Your task to perform on an android device: turn off improve location accuracy Image 0: 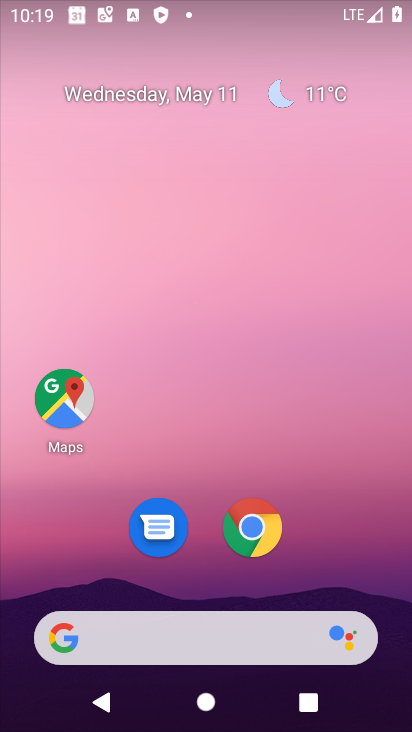
Step 0: drag from (357, 543) to (371, 124)
Your task to perform on an android device: turn off improve location accuracy Image 1: 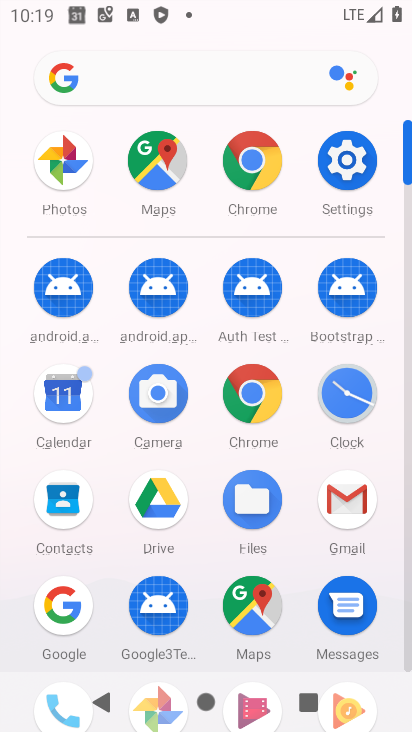
Step 1: click (340, 181)
Your task to perform on an android device: turn off improve location accuracy Image 2: 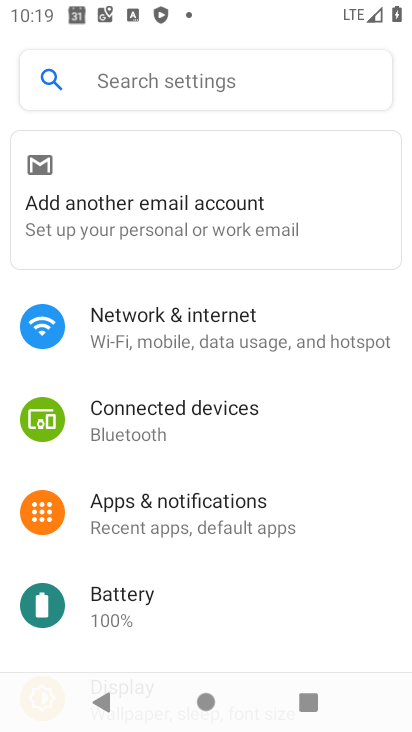
Step 2: drag from (286, 294) to (295, 219)
Your task to perform on an android device: turn off improve location accuracy Image 3: 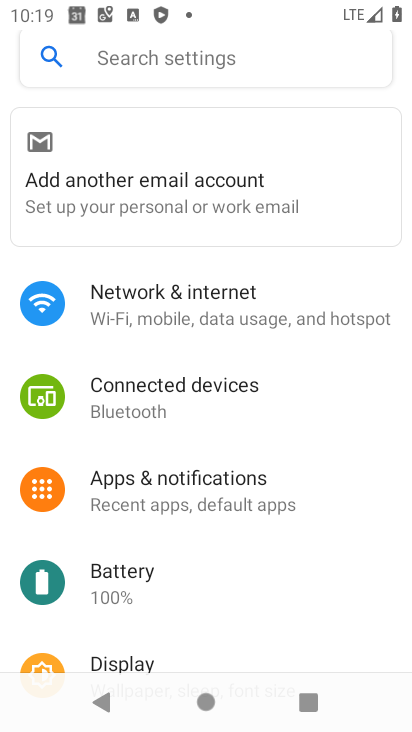
Step 3: drag from (249, 610) to (239, 314)
Your task to perform on an android device: turn off improve location accuracy Image 4: 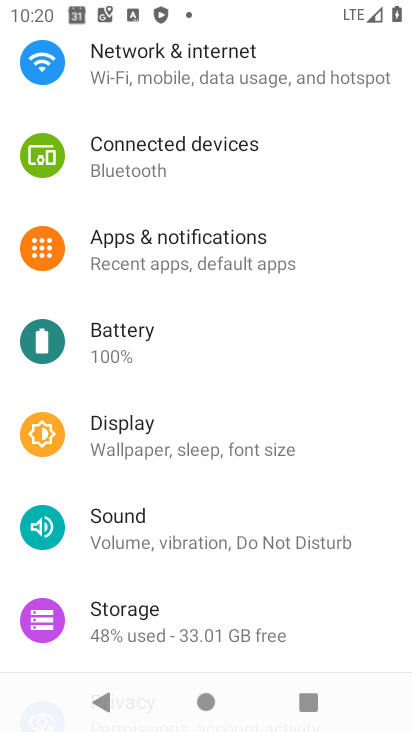
Step 4: drag from (246, 601) to (308, 221)
Your task to perform on an android device: turn off improve location accuracy Image 5: 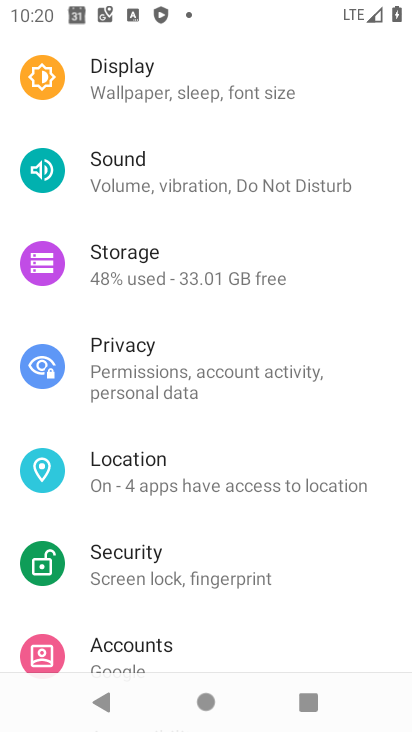
Step 5: click (224, 485)
Your task to perform on an android device: turn off improve location accuracy Image 6: 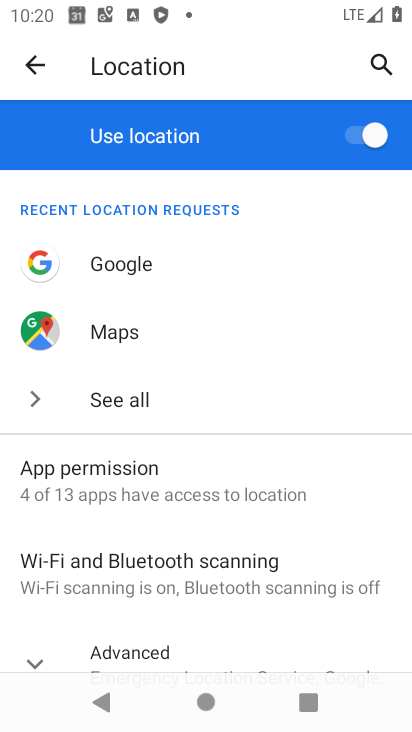
Step 6: drag from (189, 583) to (248, 286)
Your task to perform on an android device: turn off improve location accuracy Image 7: 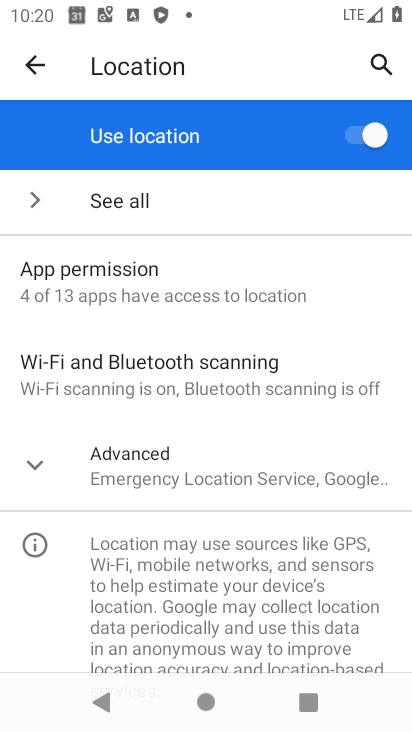
Step 7: click (251, 485)
Your task to perform on an android device: turn off improve location accuracy Image 8: 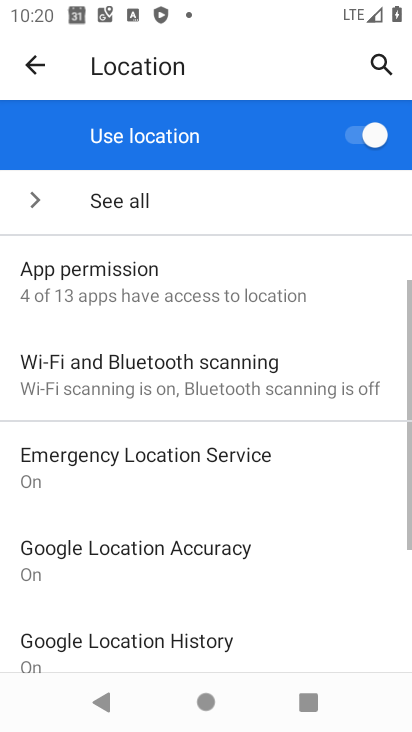
Step 8: drag from (281, 600) to (302, 218)
Your task to perform on an android device: turn off improve location accuracy Image 9: 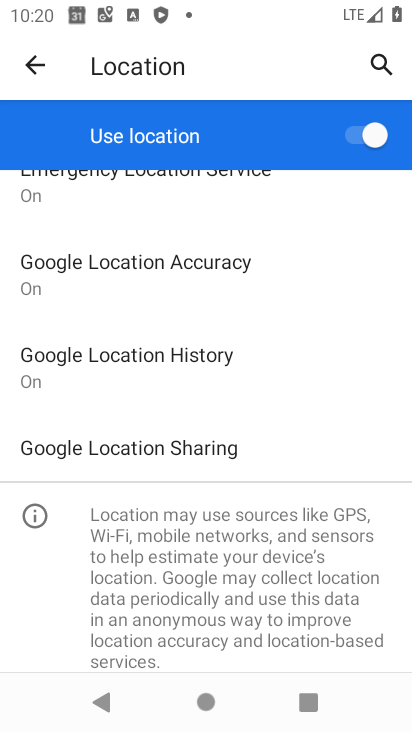
Step 9: click (176, 267)
Your task to perform on an android device: turn off improve location accuracy Image 10: 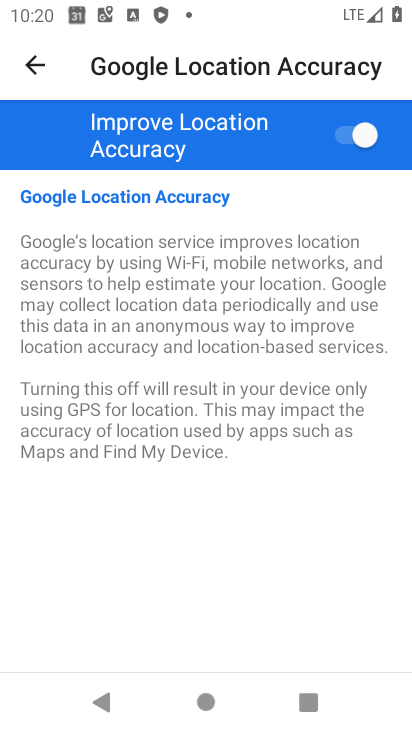
Step 10: click (353, 149)
Your task to perform on an android device: turn off improve location accuracy Image 11: 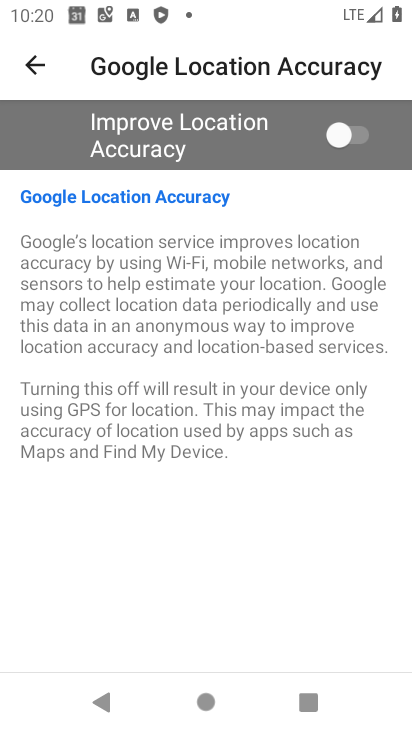
Step 11: task complete